Your task to perform on an android device: show emergency info Image 0: 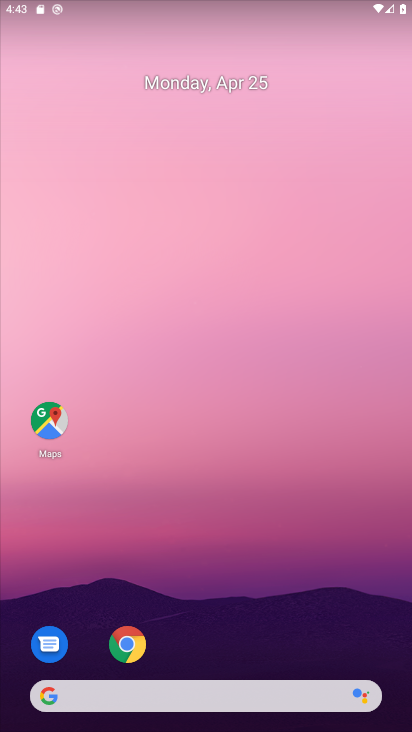
Step 0: drag from (262, 614) to (229, 13)
Your task to perform on an android device: show emergency info Image 1: 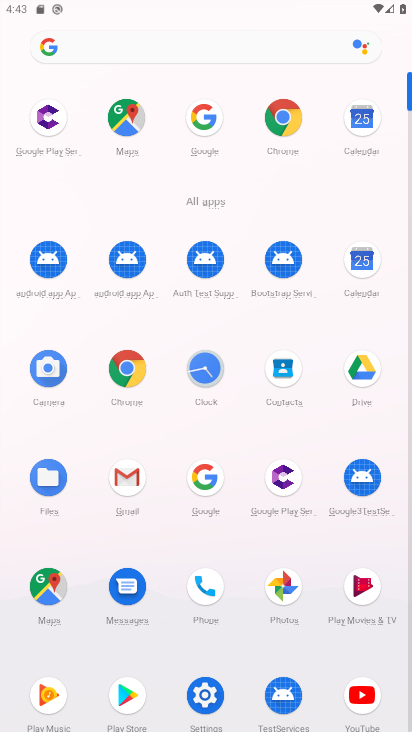
Step 1: click (206, 686)
Your task to perform on an android device: show emergency info Image 2: 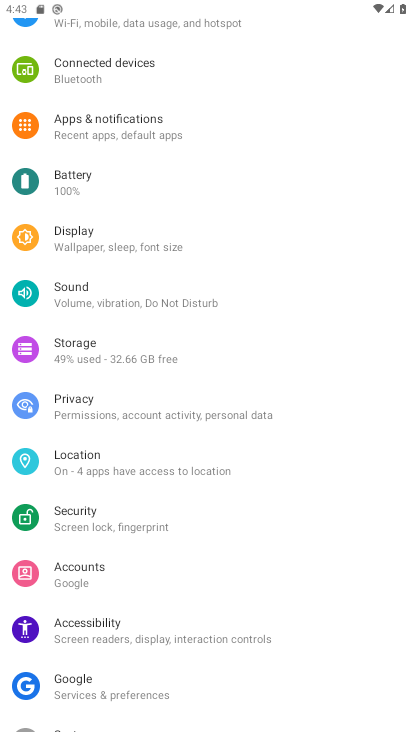
Step 2: drag from (227, 647) to (185, 88)
Your task to perform on an android device: show emergency info Image 3: 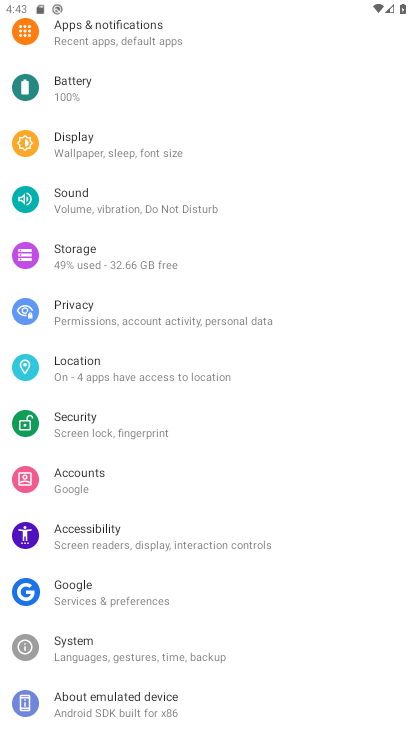
Step 3: click (138, 688)
Your task to perform on an android device: show emergency info Image 4: 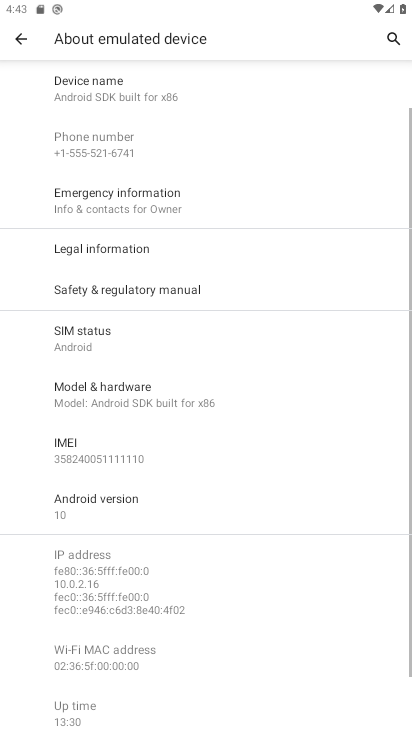
Step 4: click (141, 198)
Your task to perform on an android device: show emergency info Image 5: 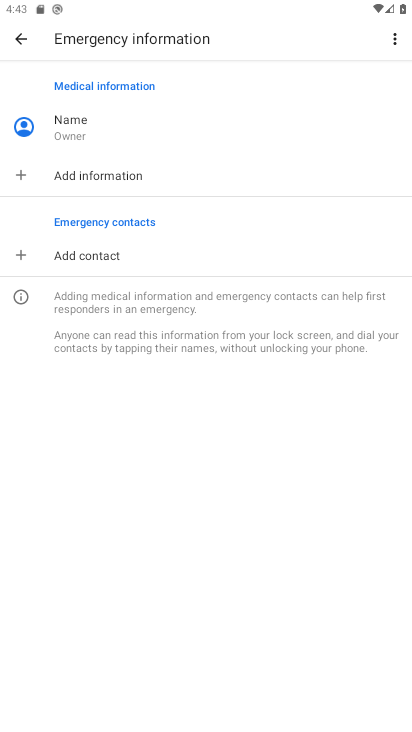
Step 5: task complete